Your task to perform on an android device: Empty the shopping cart on walmart.com. Image 0: 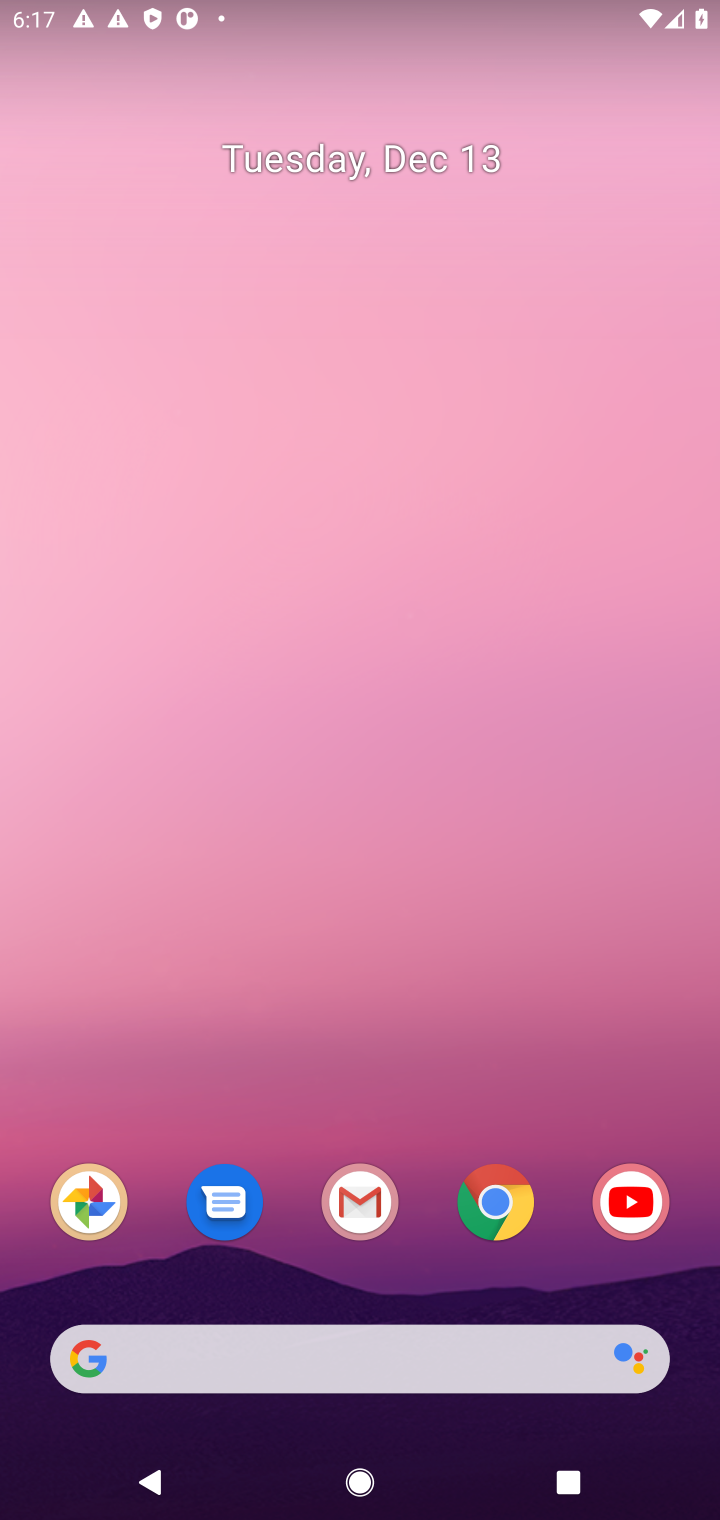
Step 0: click (486, 1224)
Your task to perform on an android device: Empty the shopping cart on walmart.com. Image 1: 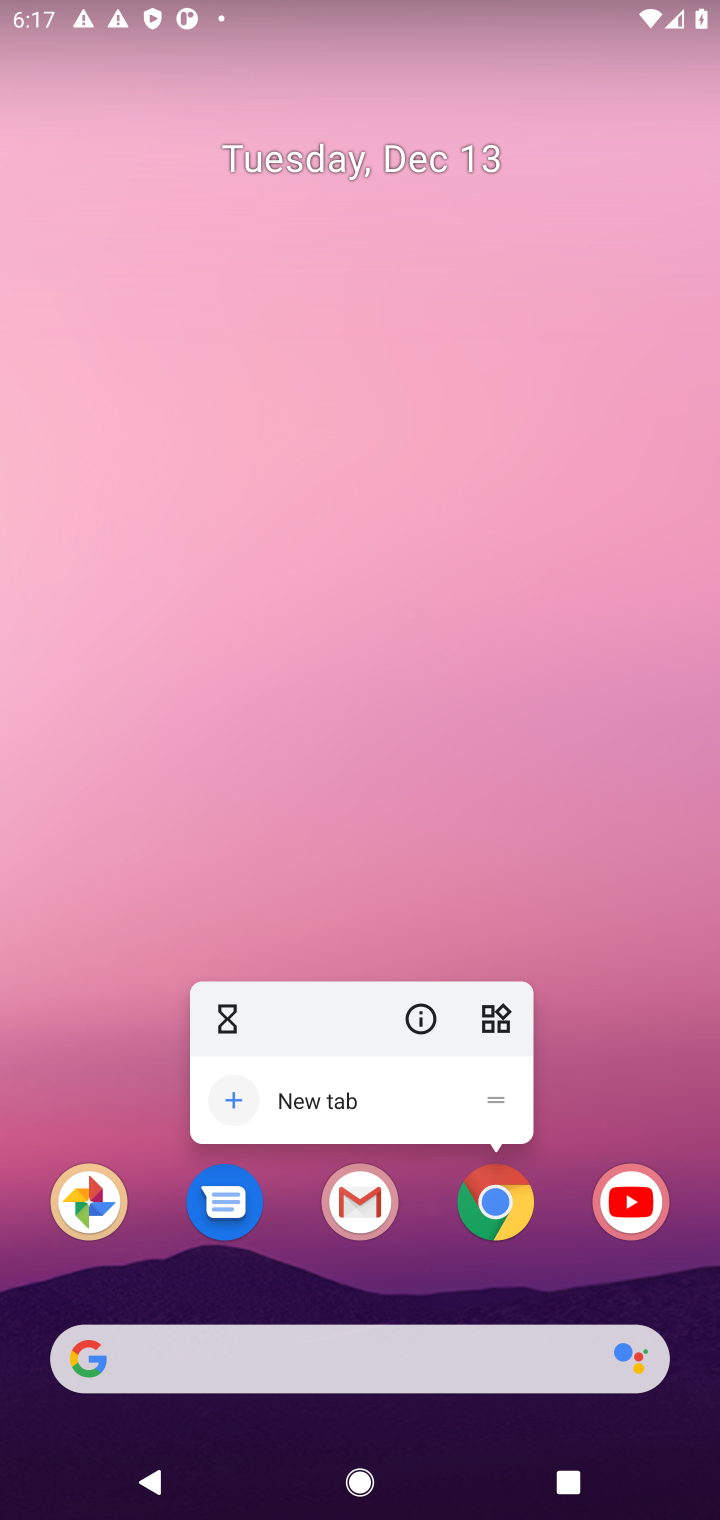
Step 1: click (498, 1211)
Your task to perform on an android device: Empty the shopping cart on walmart.com. Image 2: 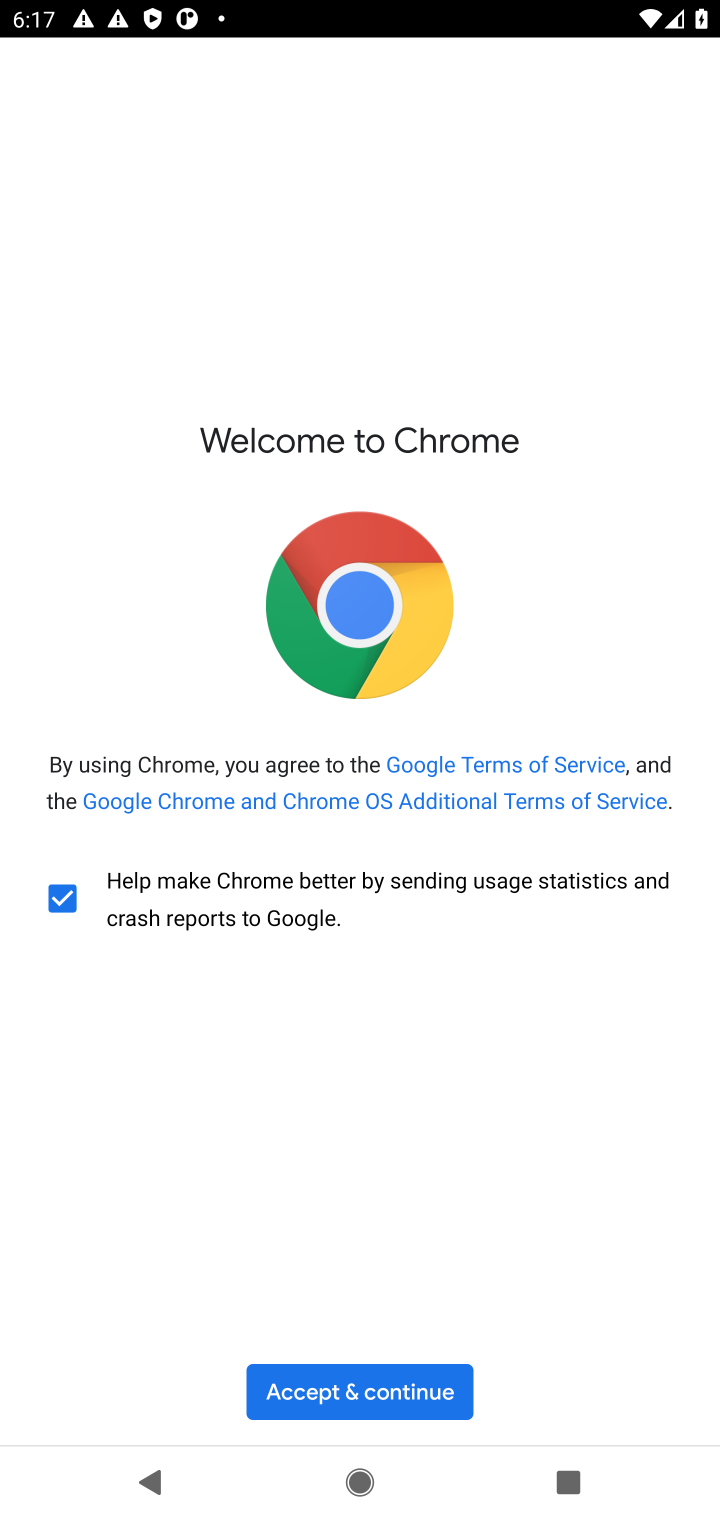
Step 2: click (354, 1400)
Your task to perform on an android device: Empty the shopping cart on walmart.com. Image 3: 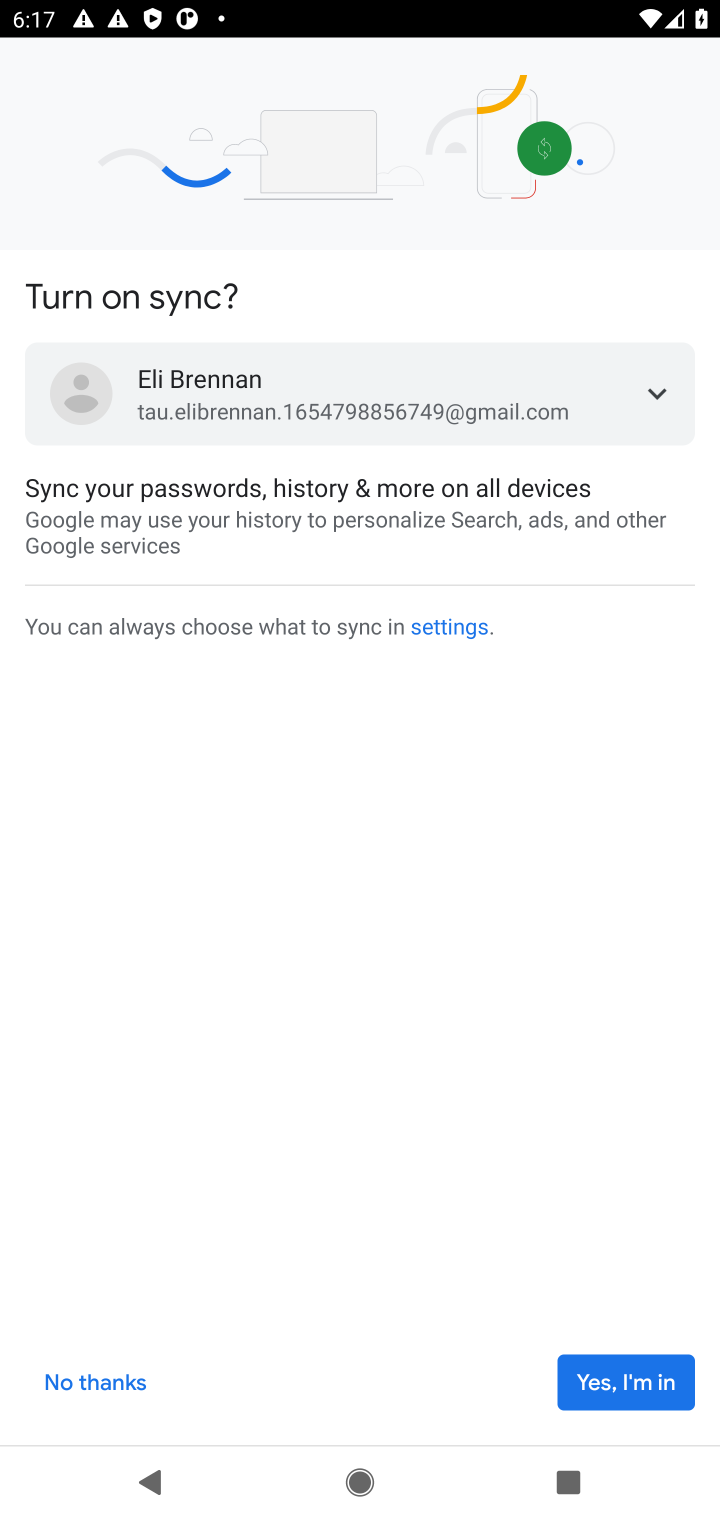
Step 3: click (83, 1384)
Your task to perform on an android device: Empty the shopping cart on walmart.com. Image 4: 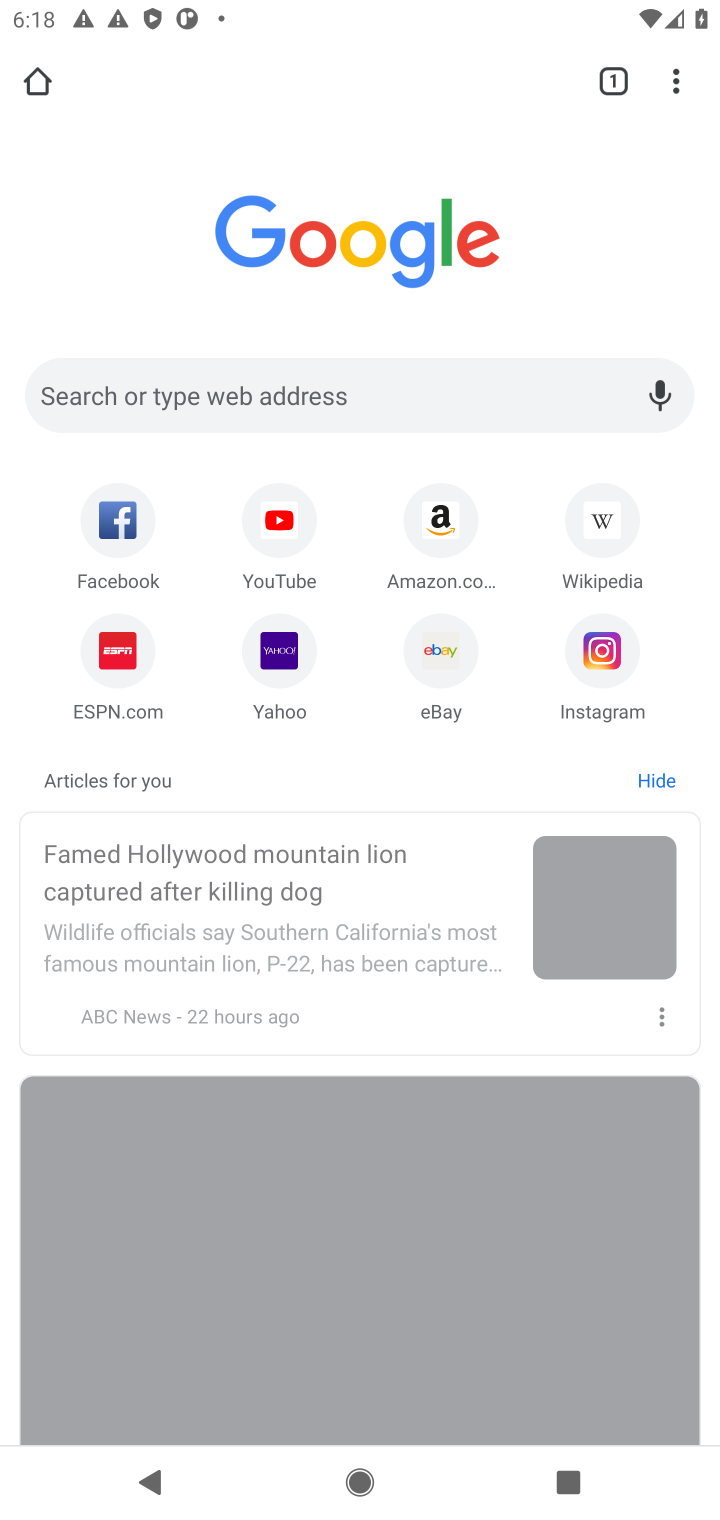
Step 4: click (211, 396)
Your task to perform on an android device: Empty the shopping cart on walmart.com. Image 5: 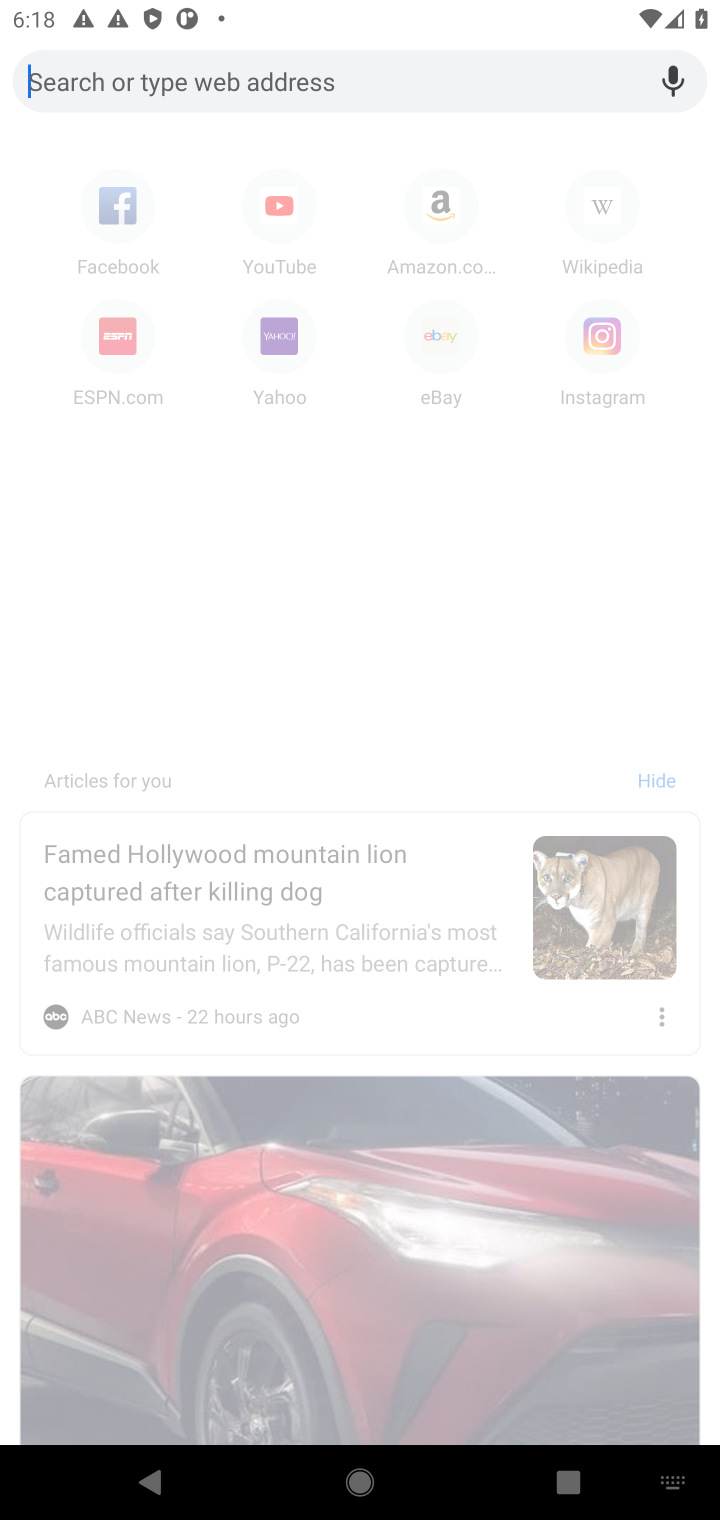
Step 5: type "walmart.com"
Your task to perform on an android device: Empty the shopping cart on walmart.com. Image 6: 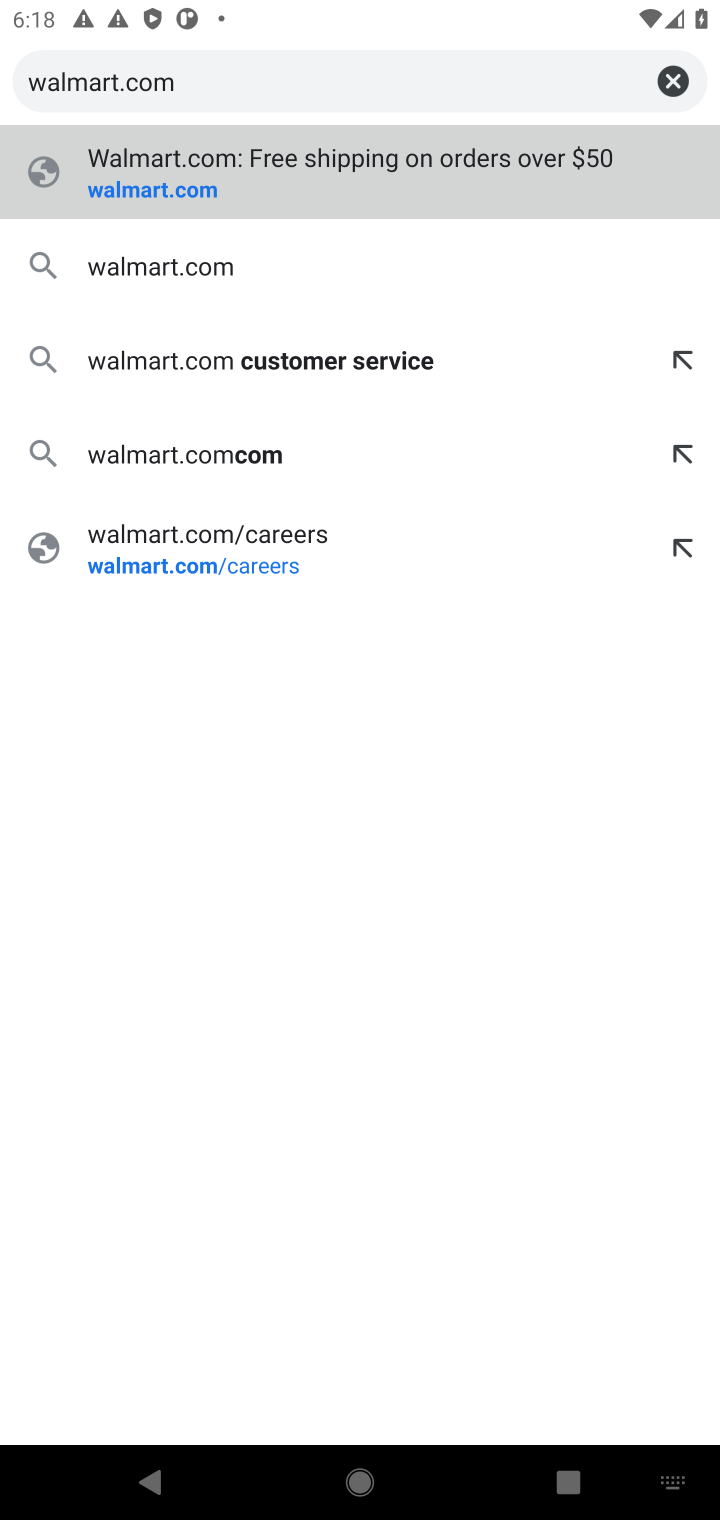
Step 6: click (160, 201)
Your task to perform on an android device: Empty the shopping cart on walmart.com. Image 7: 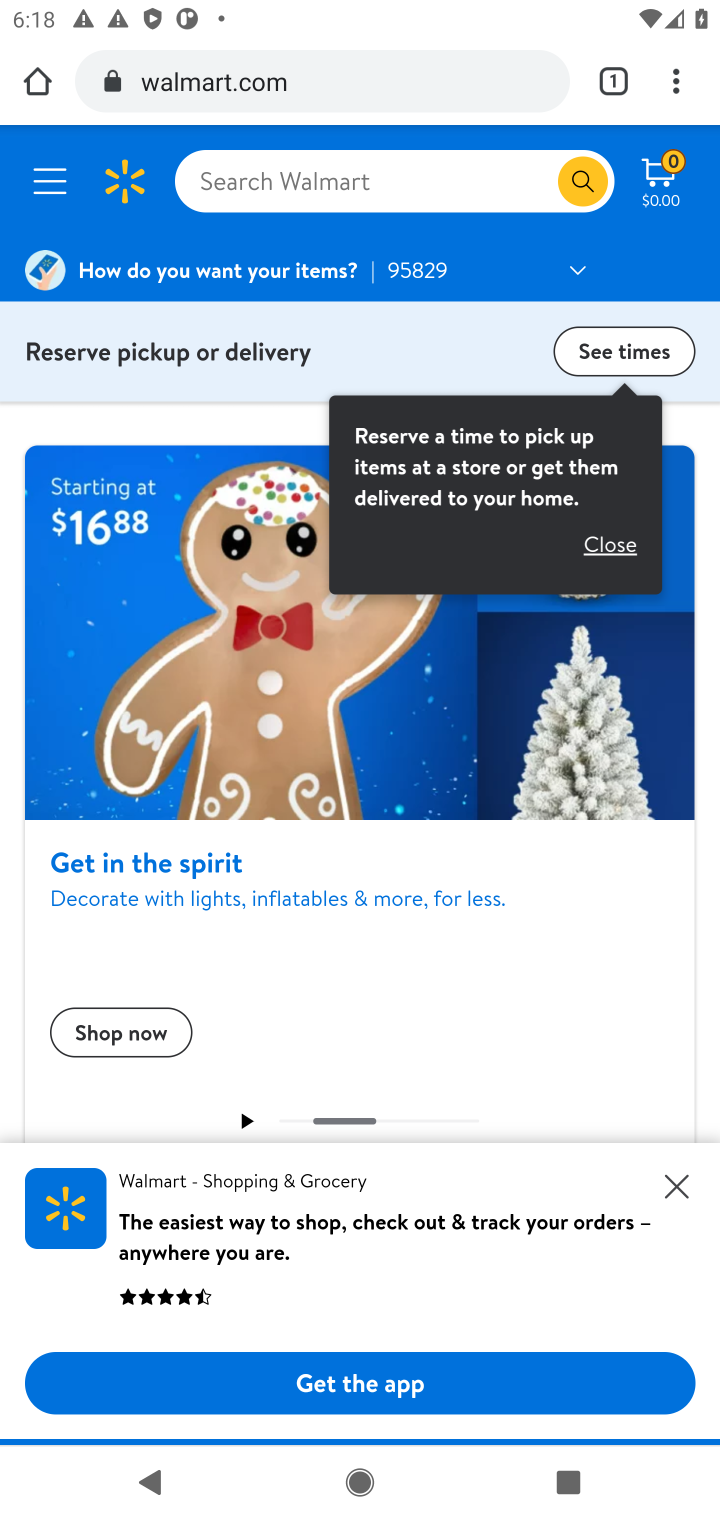
Step 7: click (664, 183)
Your task to perform on an android device: Empty the shopping cart on walmart.com. Image 8: 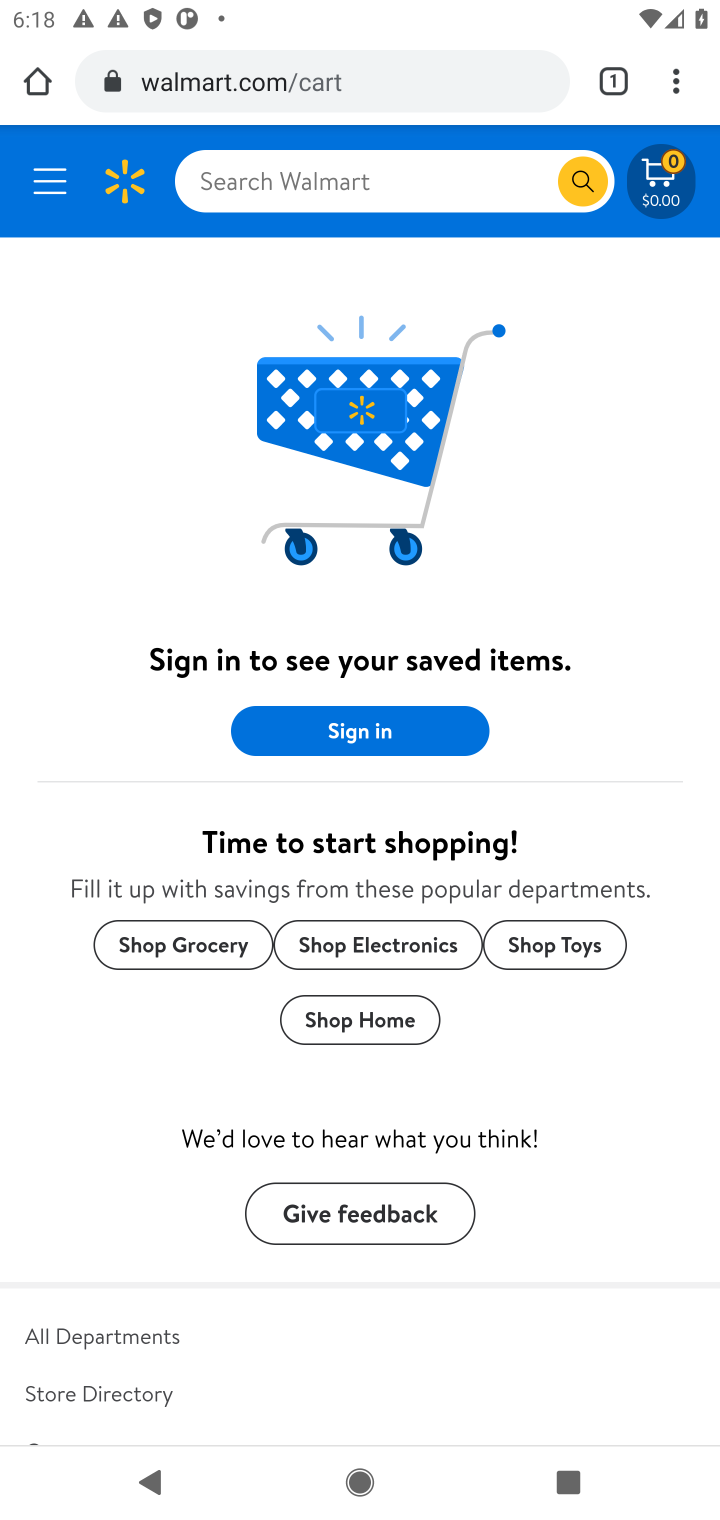
Step 8: task complete